Your task to perform on an android device: toggle sleep mode Image 0: 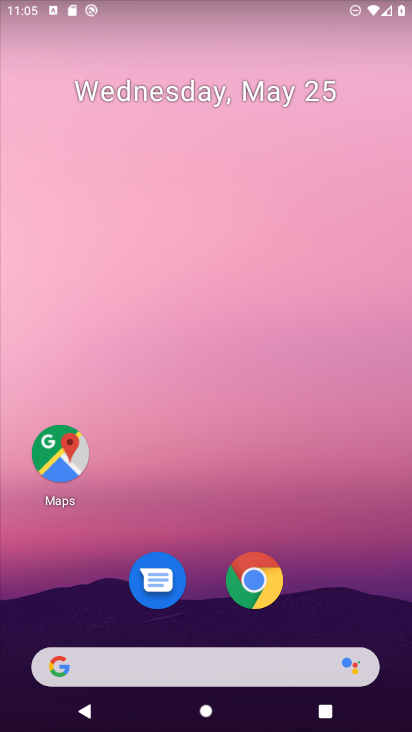
Step 0: press home button
Your task to perform on an android device: toggle sleep mode Image 1: 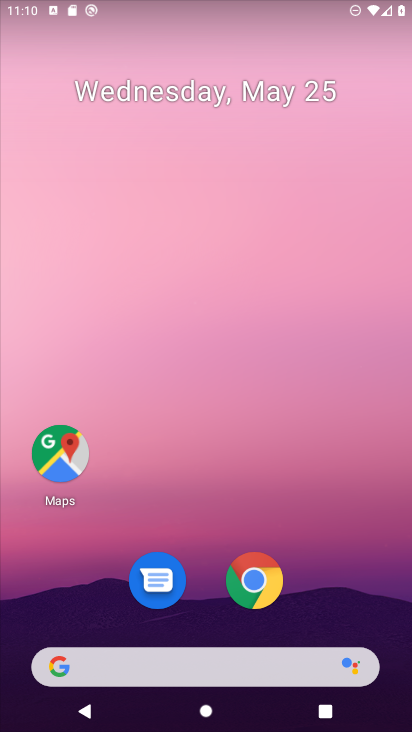
Step 1: task complete